Your task to perform on an android device: toggle notification dots Image 0: 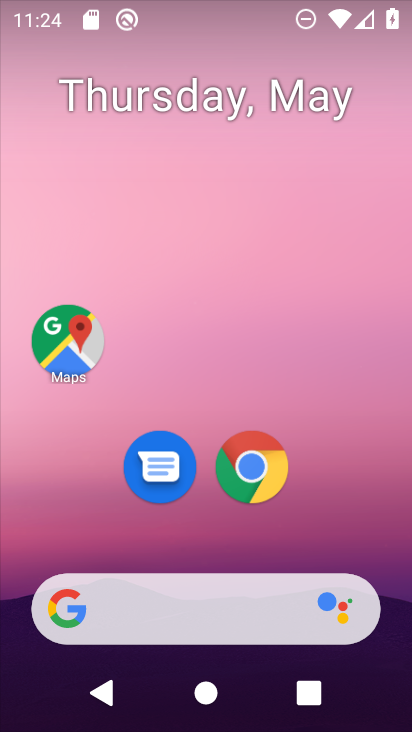
Step 0: drag from (244, 545) to (237, 147)
Your task to perform on an android device: toggle notification dots Image 1: 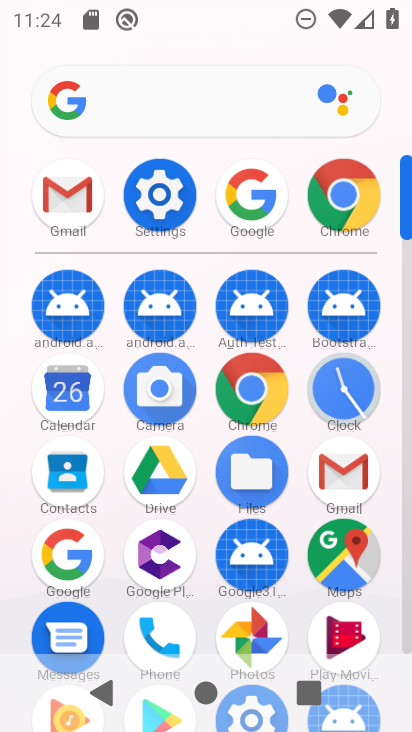
Step 1: drag from (197, 256) to (219, 149)
Your task to perform on an android device: toggle notification dots Image 2: 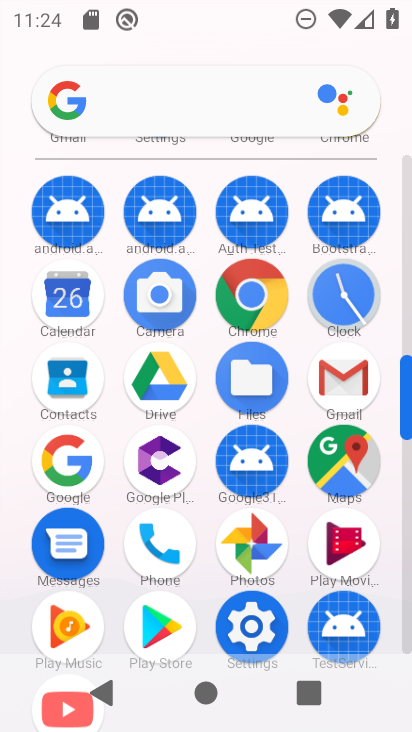
Step 2: click (246, 627)
Your task to perform on an android device: toggle notification dots Image 3: 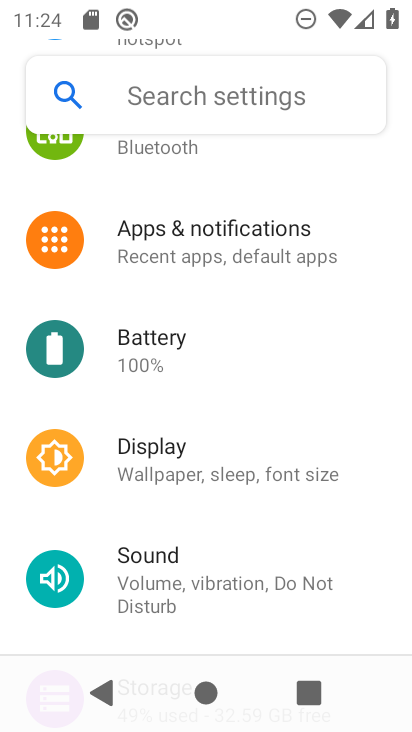
Step 3: click (221, 271)
Your task to perform on an android device: toggle notification dots Image 4: 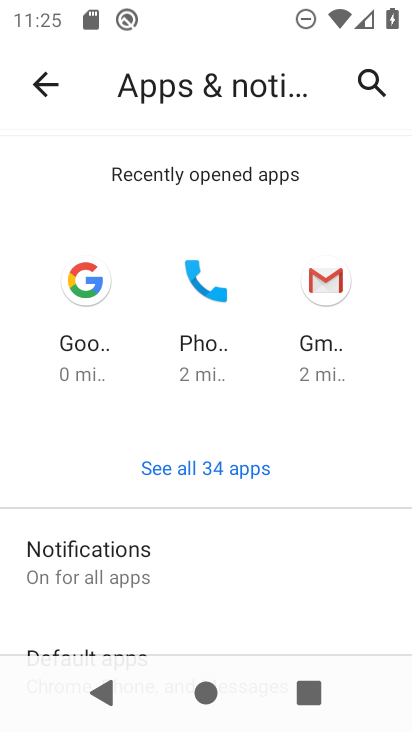
Step 4: click (177, 574)
Your task to perform on an android device: toggle notification dots Image 5: 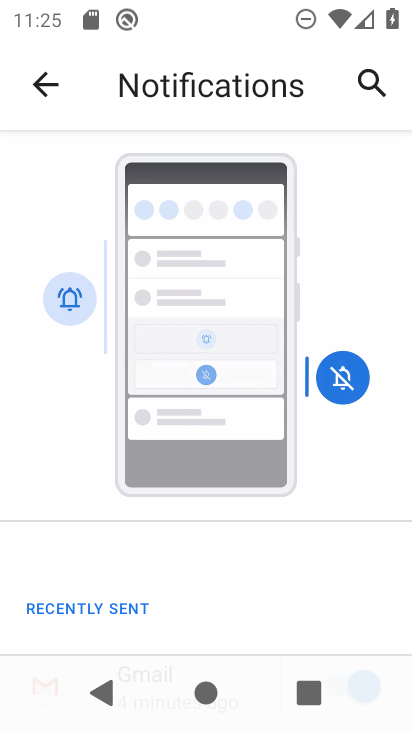
Step 5: drag from (174, 668) to (244, 161)
Your task to perform on an android device: toggle notification dots Image 6: 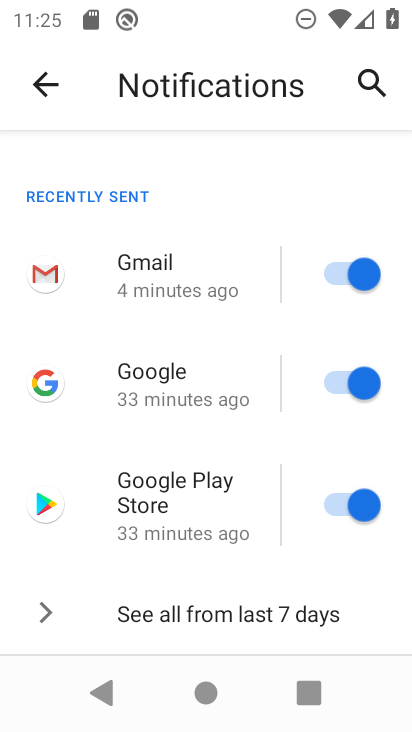
Step 6: drag from (159, 536) to (173, 137)
Your task to perform on an android device: toggle notification dots Image 7: 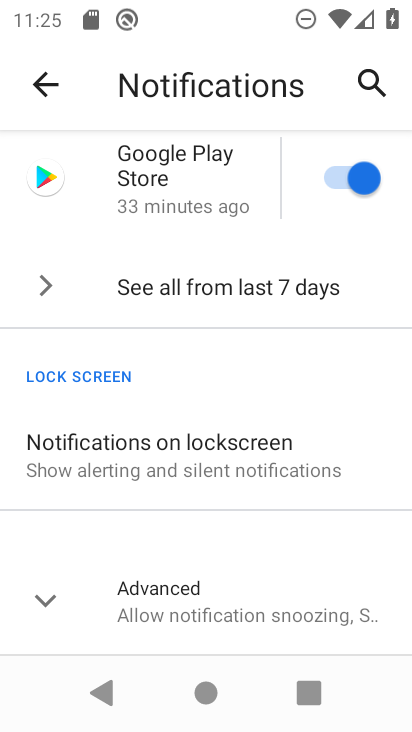
Step 7: drag from (172, 596) to (169, 328)
Your task to perform on an android device: toggle notification dots Image 8: 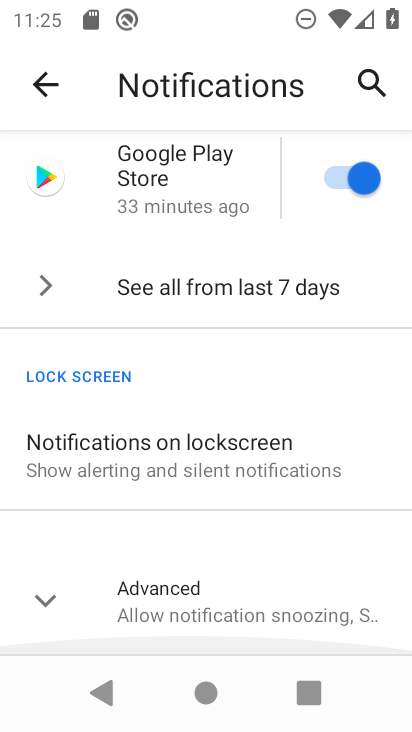
Step 8: click (186, 594)
Your task to perform on an android device: toggle notification dots Image 9: 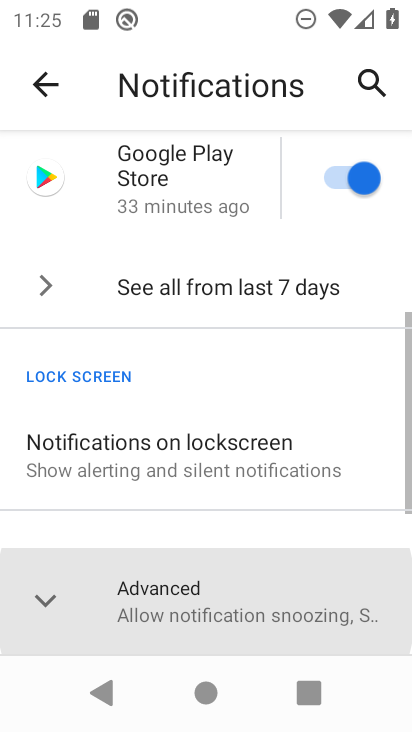
Step 9: drag from (189, 531) to (199, 160)
Your task to perform on an android device: toggle notification dots Image 10: 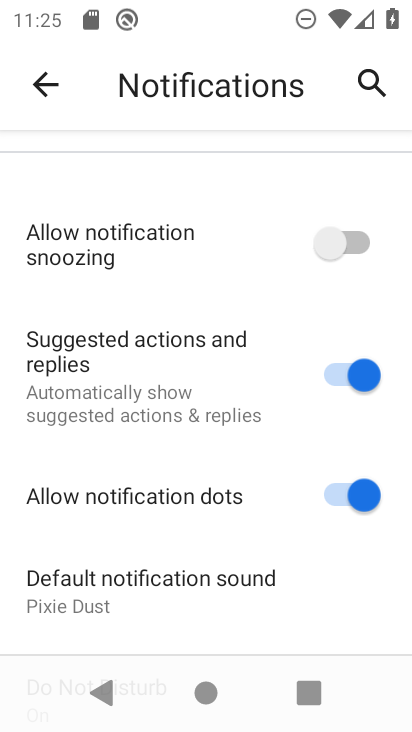
Step 10: click (341, 493)
Your task to perform on an android device: toggle notification dots Image 11: 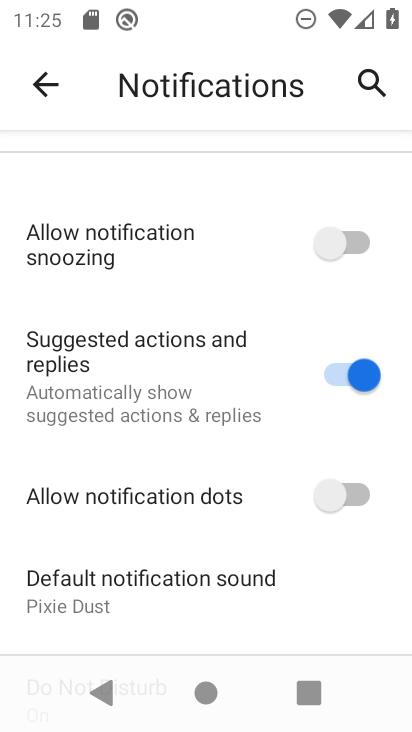
Step 11: task complete